Your task to perform on an android device: empty trash in google photos Image 0: 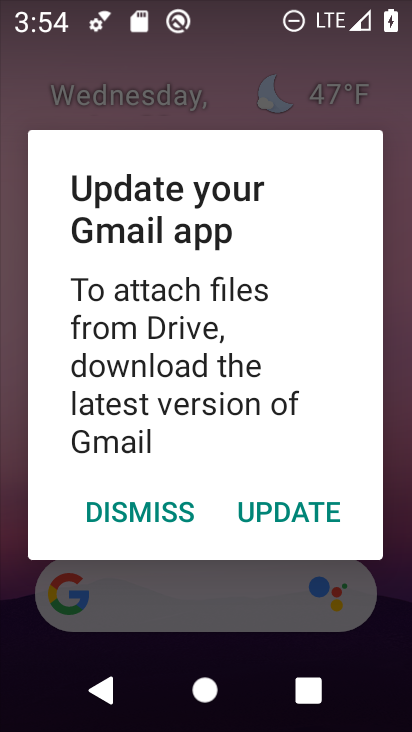
Step 0: press home button
Your task to perform on an android device: empty trash in google photos Image 1: 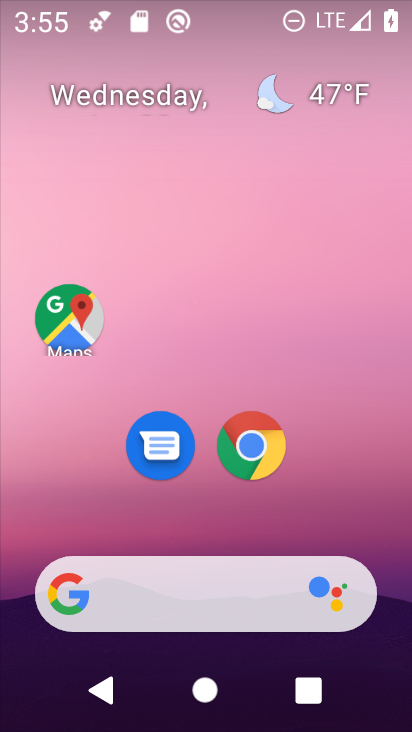
Step 1: drag from (312, 491) to (245, 17)
Your task to perform on an android device: empty trash in google photos Image 2: 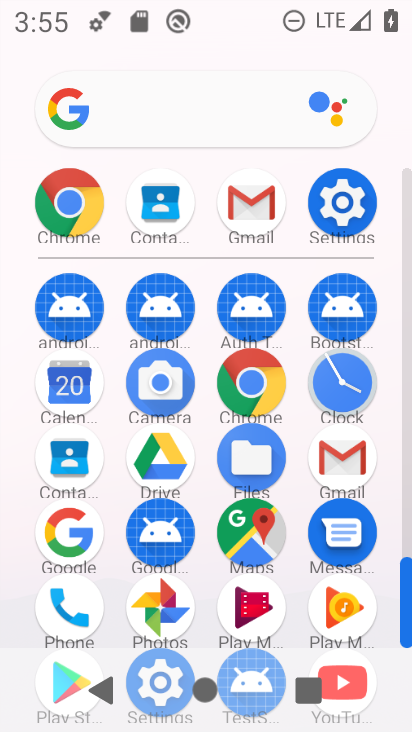
Step 2: click (164, 611)
Your task to perform on an android device: empty trash in google photos Image 3: 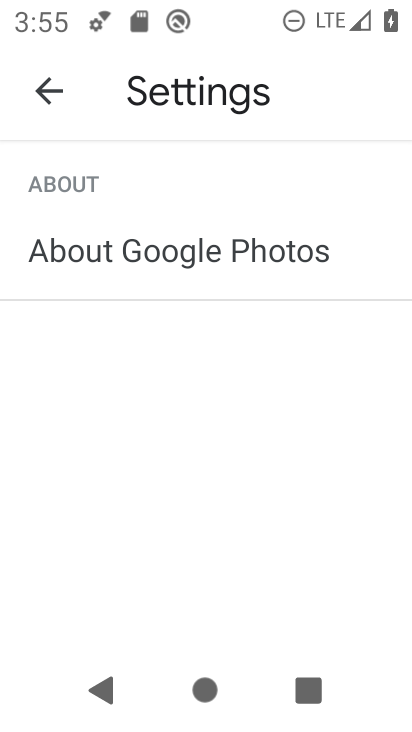
Step 3: press back button
Your task to perform on an android device: empty trash in google photos Image 4: 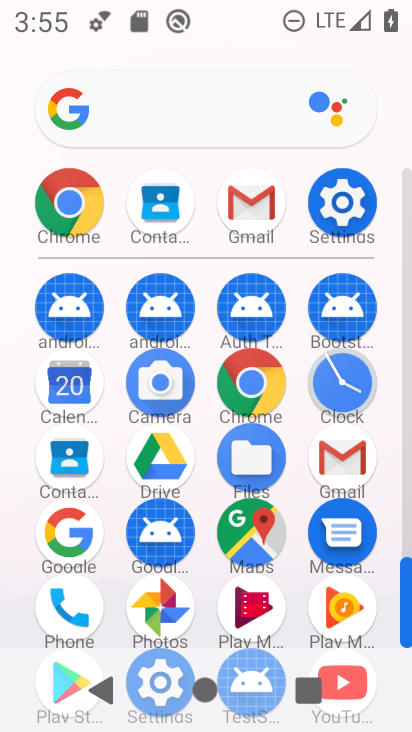
Step 4: drag from (209, 530) to (238, 254)
Your task to perform on an android device: empty trash in google photos Image 5: 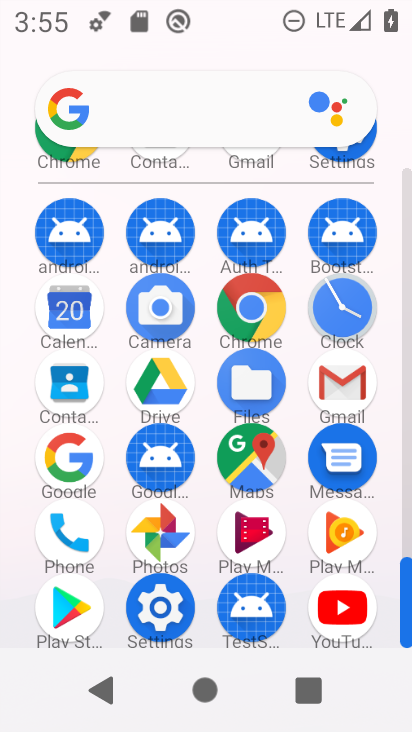
Step 5: click (162, 530)
Your task to perform on an android device: empty trash in google photos Image 6: 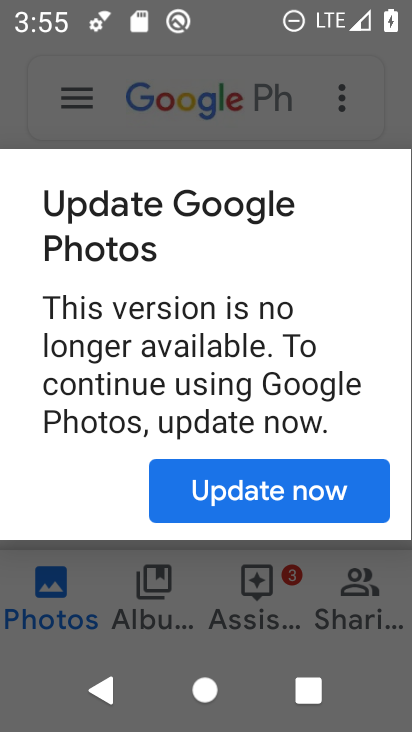
Step 6: click (279, 478)
Your task to perform on an android device: empty trash in google photos Image 7: 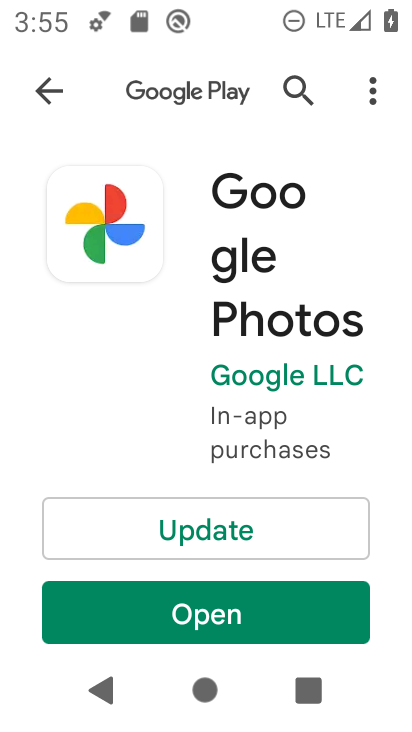
Step 7: click (202, 607)
Your task to perform on an android device: empty trash in google photos Image 8: 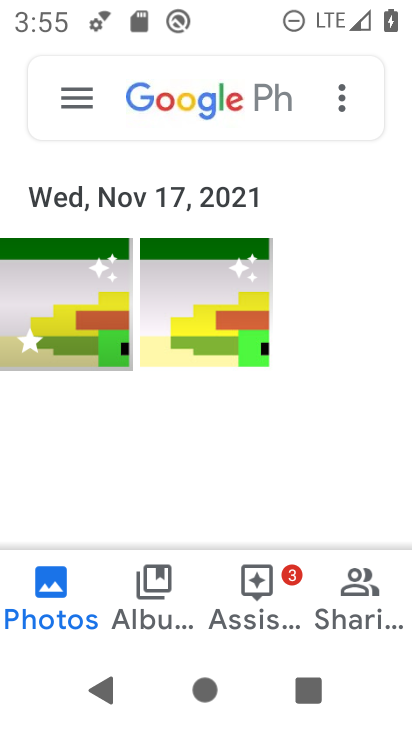
Step 8: click (81, 106)
Your task to perform on an android device: empty trash in google photos Image 9: 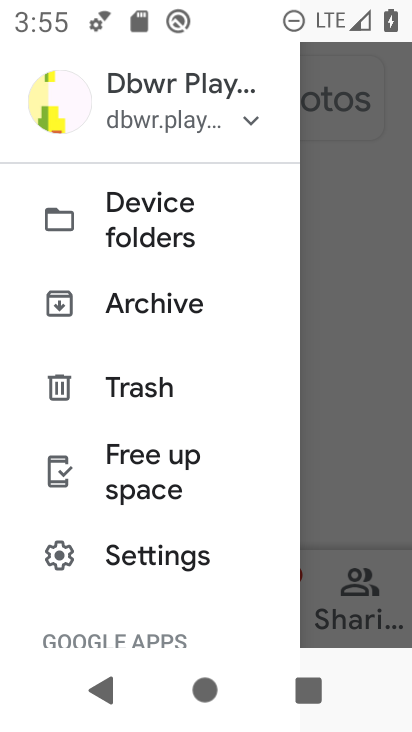
Step 9: click (144, 386)
Your task to perform on an android device: empty trash in google photos Image 10: 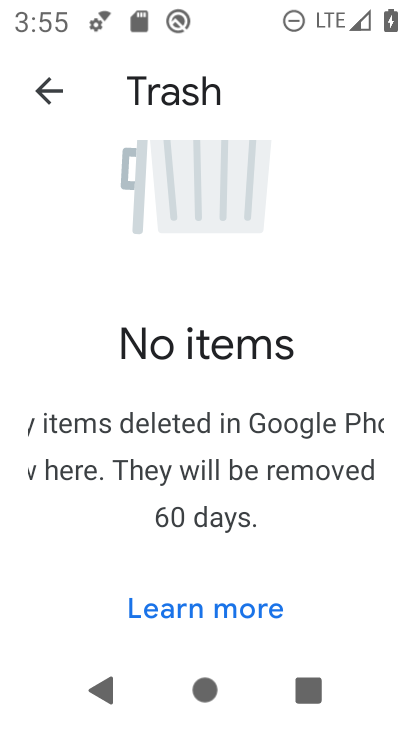
Step 10: task complete